Your task to perform on an android device: Is it going to rain today? Image 0: 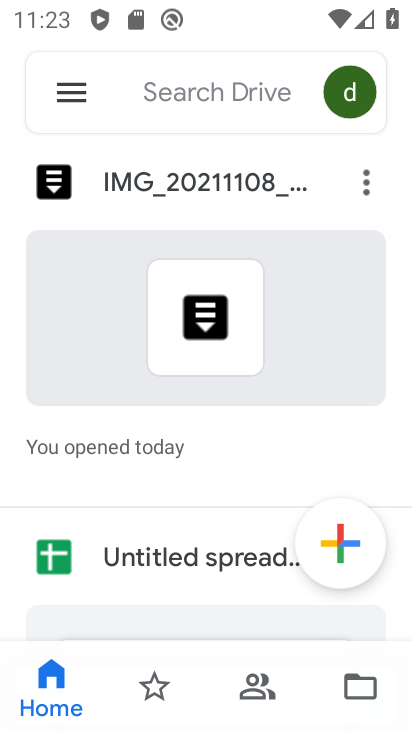
Step 0: press back button
Your task to perform on an android device: Is it going to rain today? Image 1: 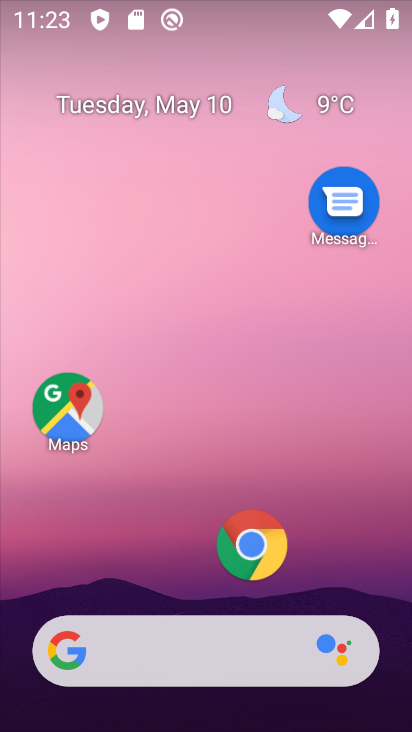
Step 1: click (282, 101)
Your task to perform on an android device: Is it going to rain today? Image 2: 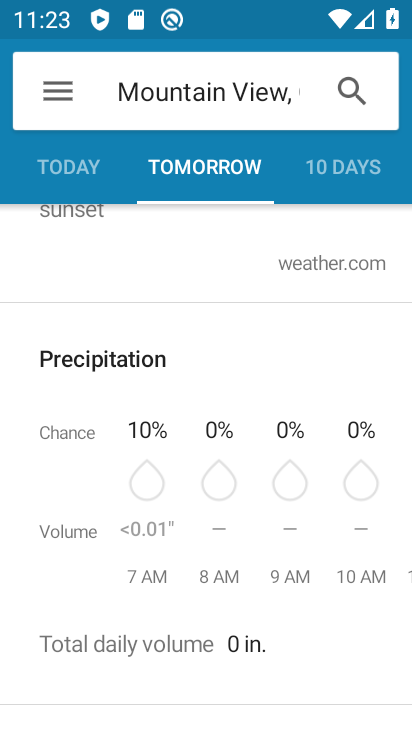
Step 2: click (89, 168)
Your task to perform on an android device: Is it going to rain today? Image 3: 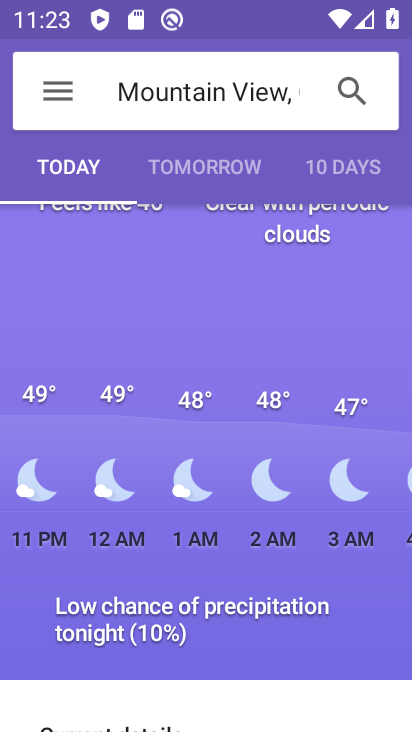
Step 3: task complete